Your task to perform on an android device: Go to Android settings Image 0: 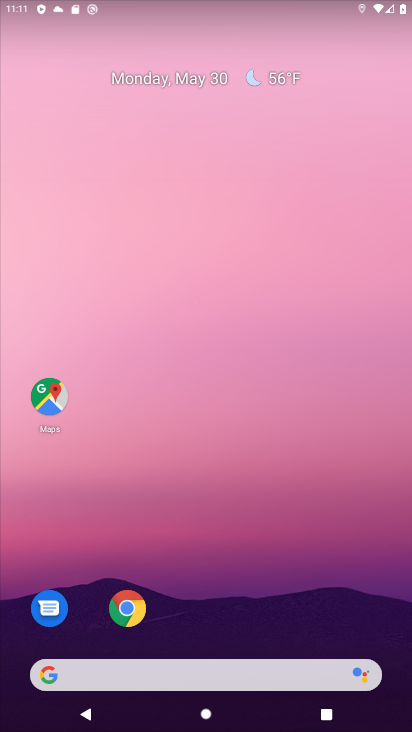
Step 0: drag from (300, 615) to (316, 24)
Your task to perform on an android device: Go to Android settings Image 1: 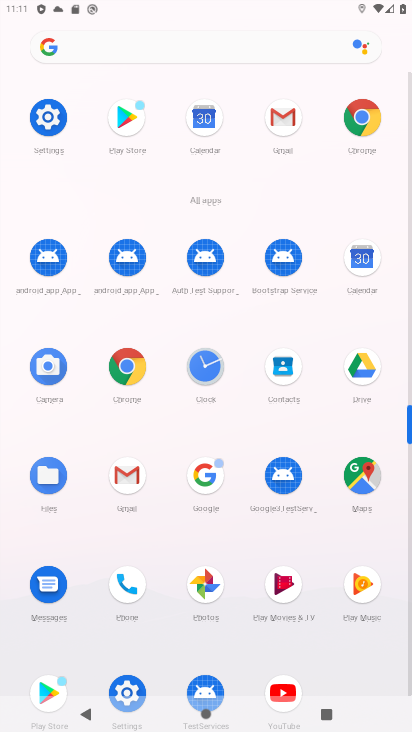
Step 1: click (57, 117)
Your task to perform on an android device: Go to Android settings Image 2: 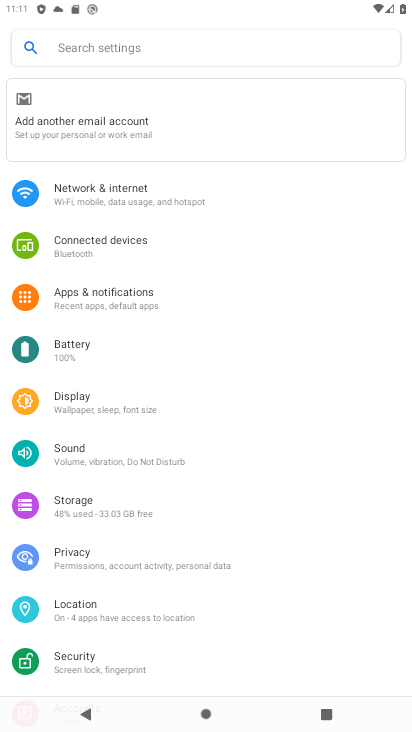
Step 2: task complete